Your task to perform on an android device: toggle javascript in the chrome app Image 0: 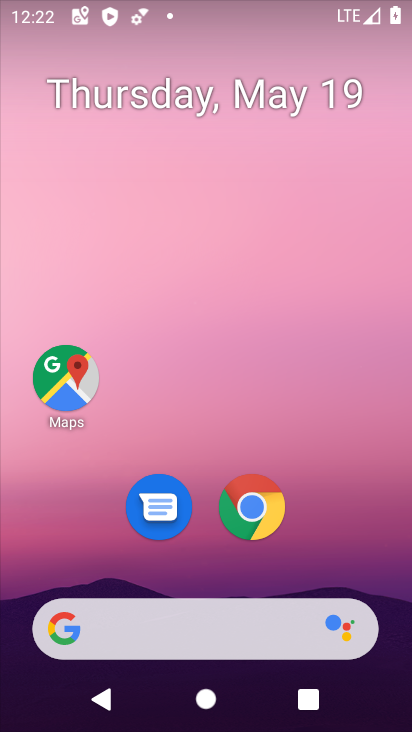
Step 0: click (257, 486)
Your task to perform on an android device: toggle javascript in the chrome app Image 1: 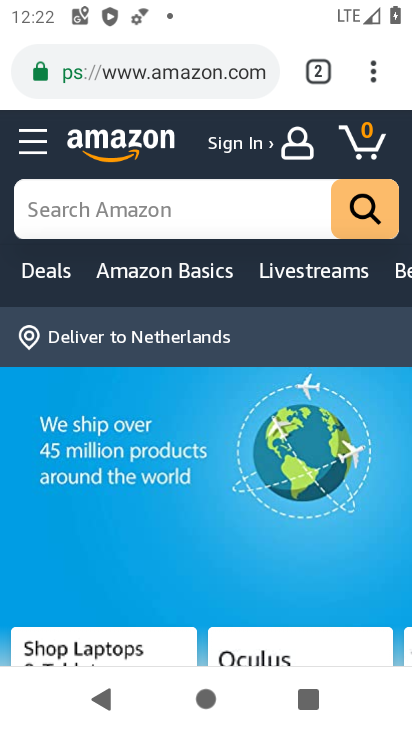
Step 1: click (373, 70)
Your task to perform on an android device: toggle javascript in the chrome app Image 2: 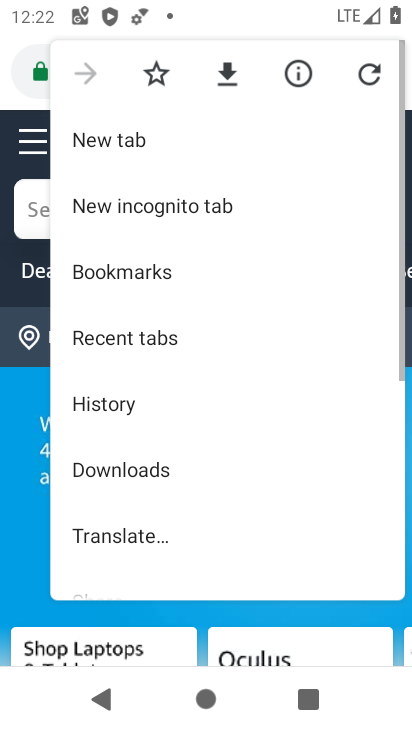
Step 2: drag from (147, 491) to (166, 253)
Your task to perform on an android device: toggle javascript in the chrome app Image 3: 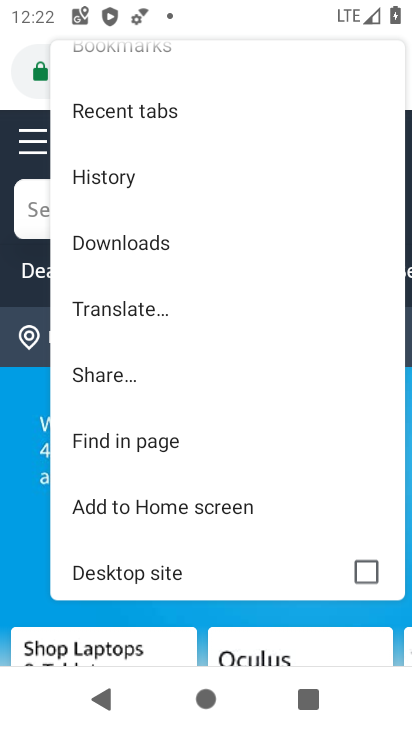
Step 3: drag from (92, 543) to (138, 316)
Your task to perform on an android device: toggle javascript in the chrome app Image 4: 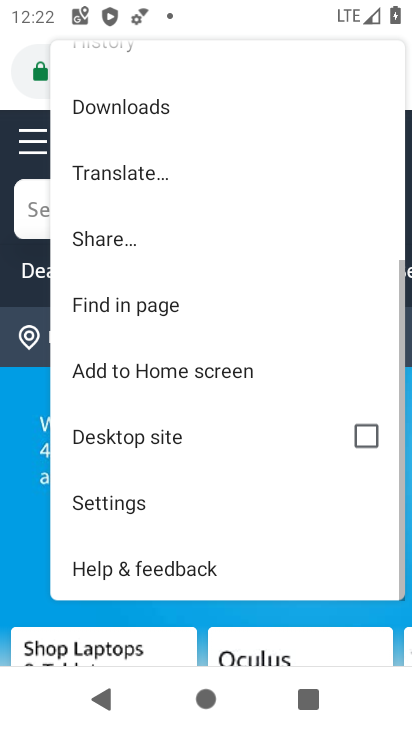
Step 4: click (126, 505)
Your task to perform on an android device: toggle javascript in the chrome app Image 5: 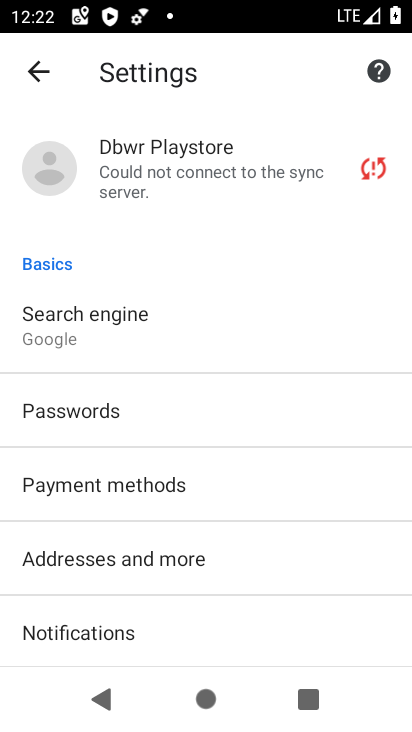
Step 5: drag from (179, 494) to (196, 284)
Your task to perform on an android device: toggle javascript in the chrome app Image 6: 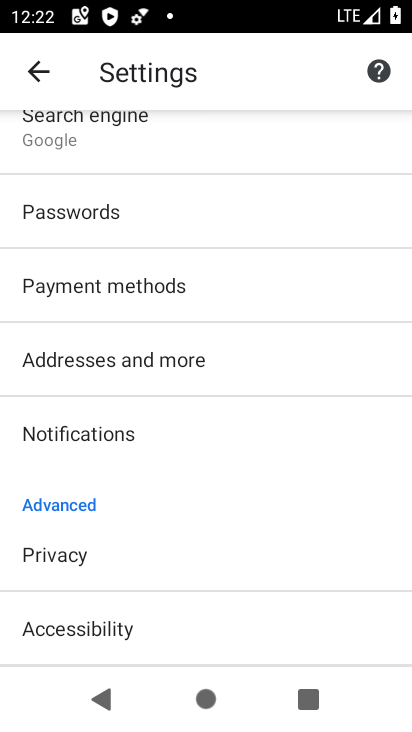
Step 6: drag from (96, 600) to (119, 452)
Your task to perform on an android device: toggle javascript in the chrome app Image 7: 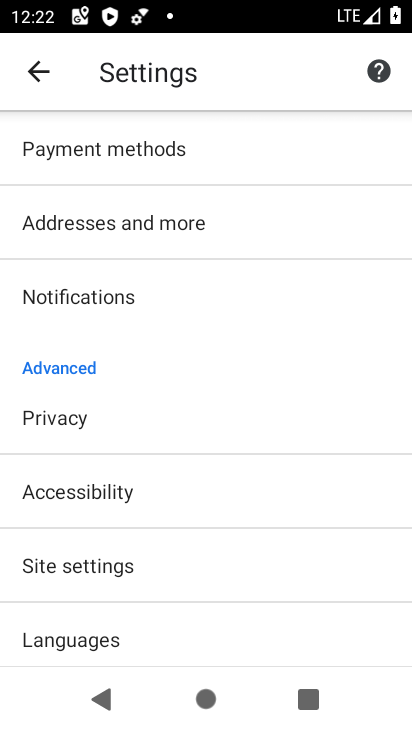
Step 7: click (85, 573)
Your task to perform on an android device: toggle javascript in the chrome app Image 8: 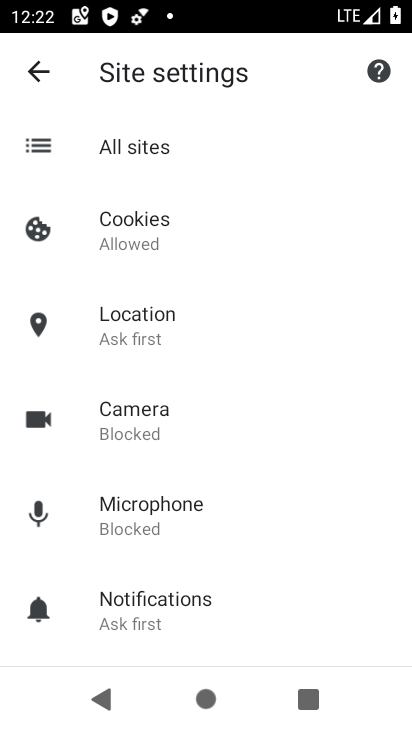
Step 8: drag from (144, 523) to (151, 336)
Your task to perform on an android device: toggle javascript in the chrome app Image 9: 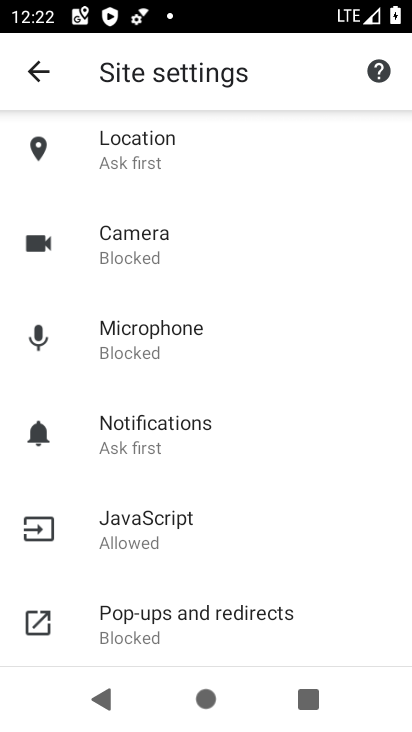
Step 9: click (137, 548)
Your task to perform on an android device: toggle javascript in the chrome app Image 10: 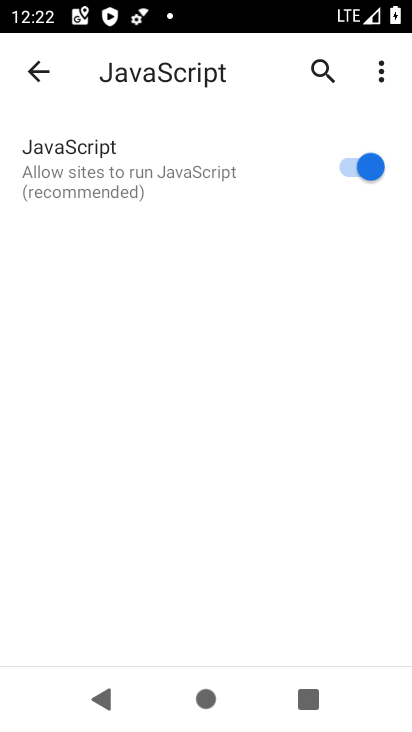
Step 10: click (338, 165)
Your task to perform on an android device: toggle javascript in the chrome app Image 11: 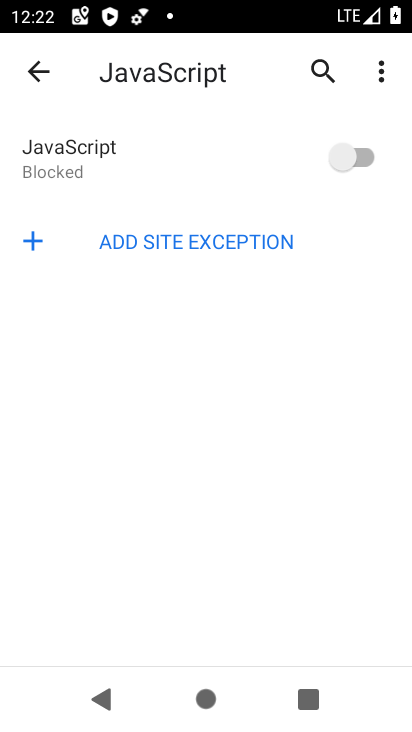
Step 11: task complete